Your task to perform on an android device: Open internet settings Image 0: 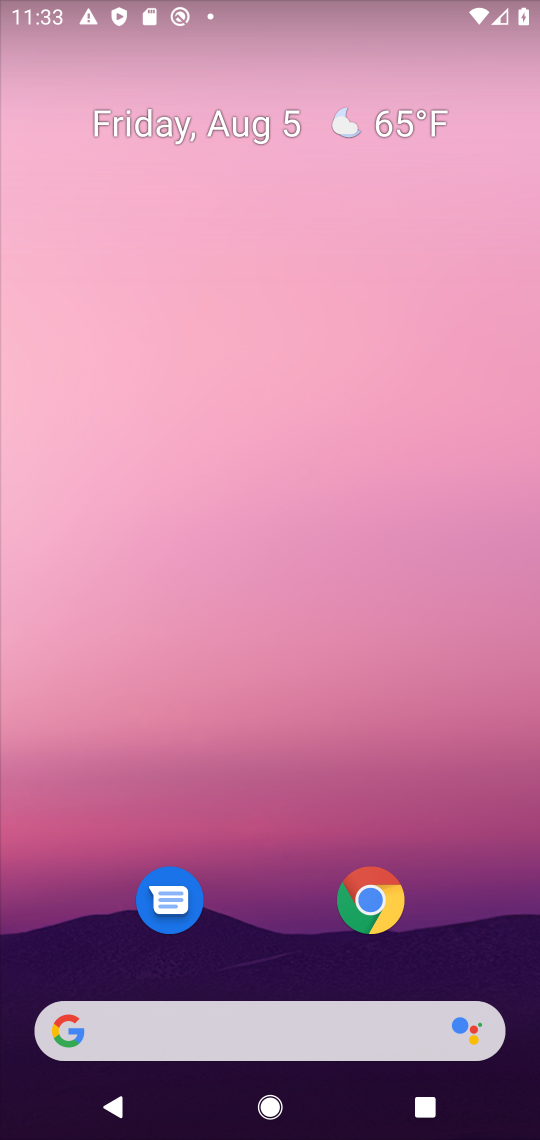
Step 0: drag from (273, 955) to (300, 66)
Your task to perform on an android device: Open internet settings Image 1: 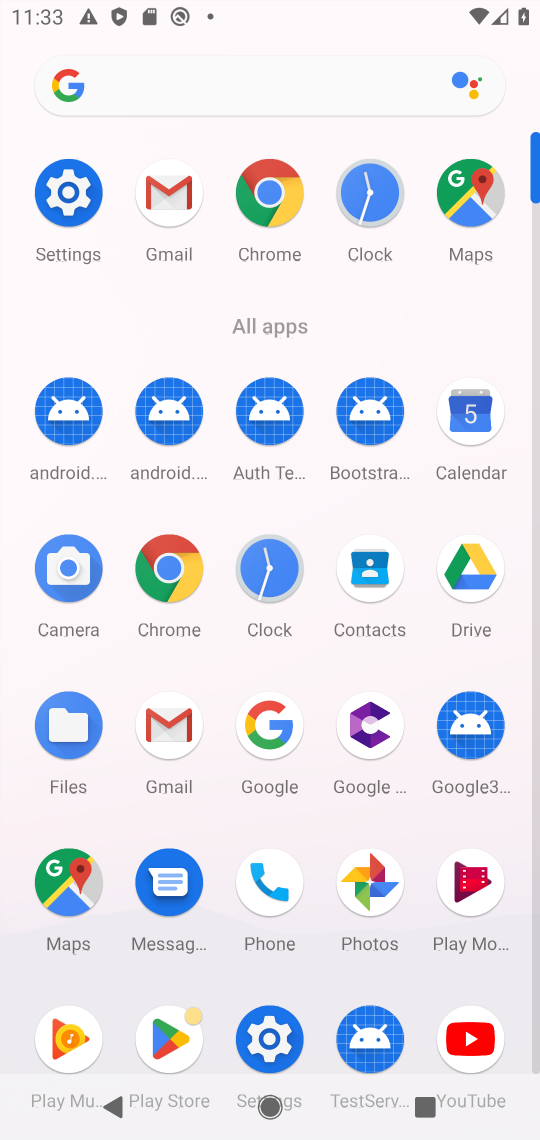
Step 1: click (82, 180)
Your task to perform on an android device: Open internet settings Image 2: 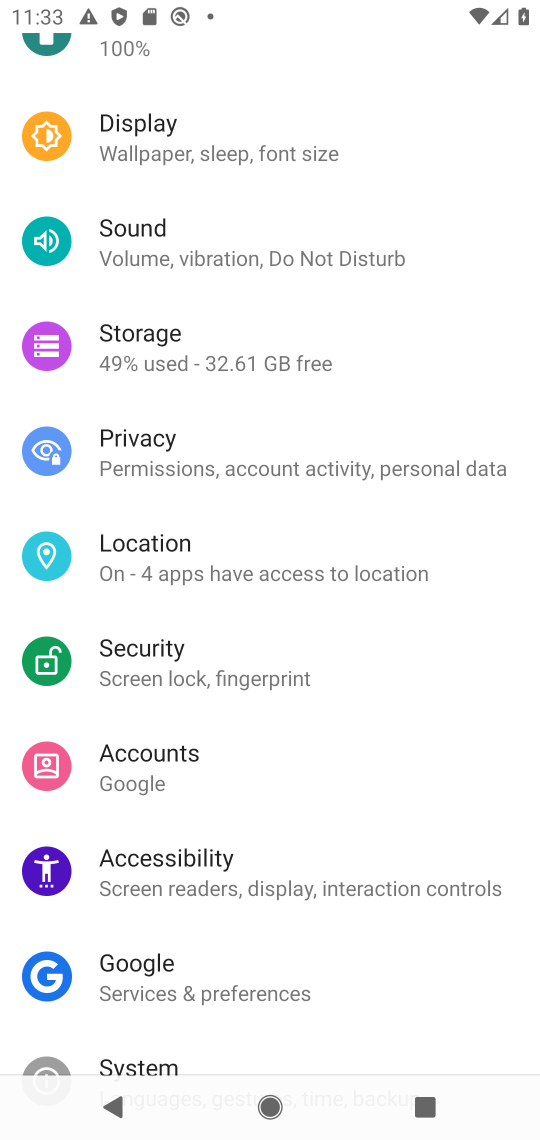
Step 2: drag from (237, 196) to (256, 898)
Your task to perform on an android device: Open internet settings Image 3: 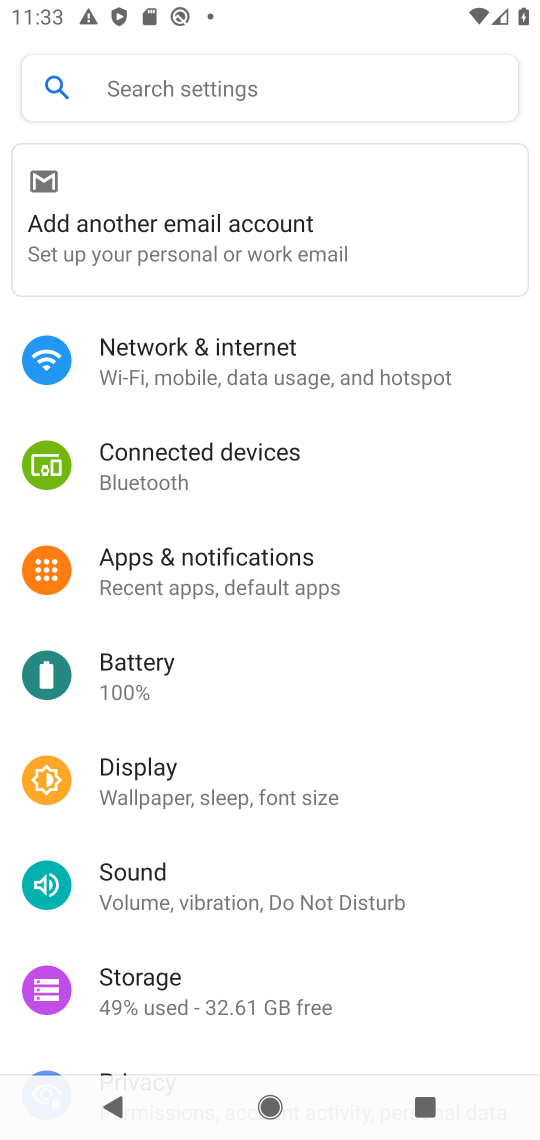
Step 3: click (187, 357)
Your task to perform on an android device: Open internet settings Image 4: 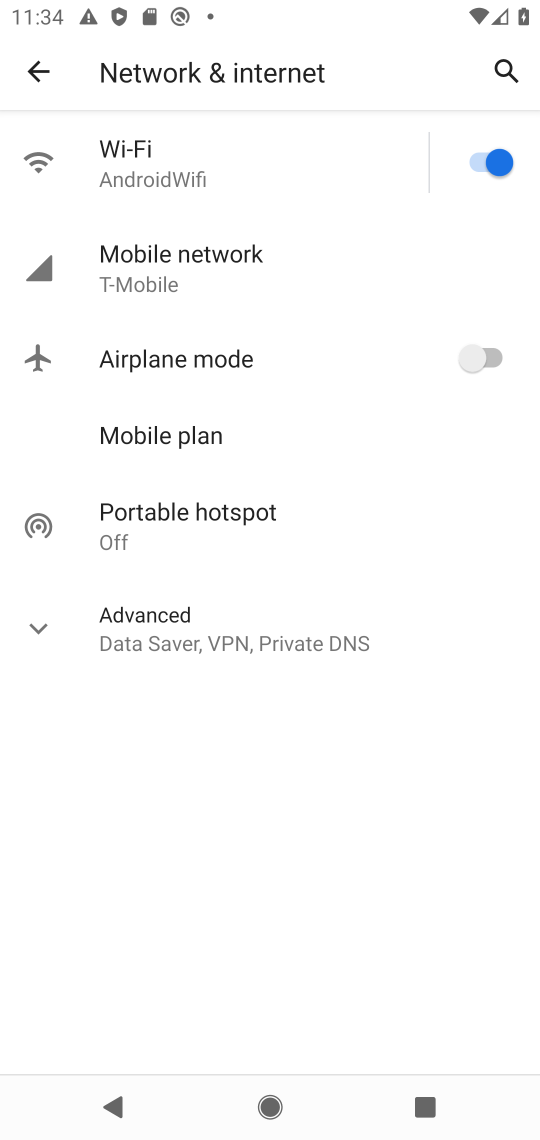
Step 4: task complete